Your task to perform on an android device: turn off priority inbox in the gmail app Image 0: 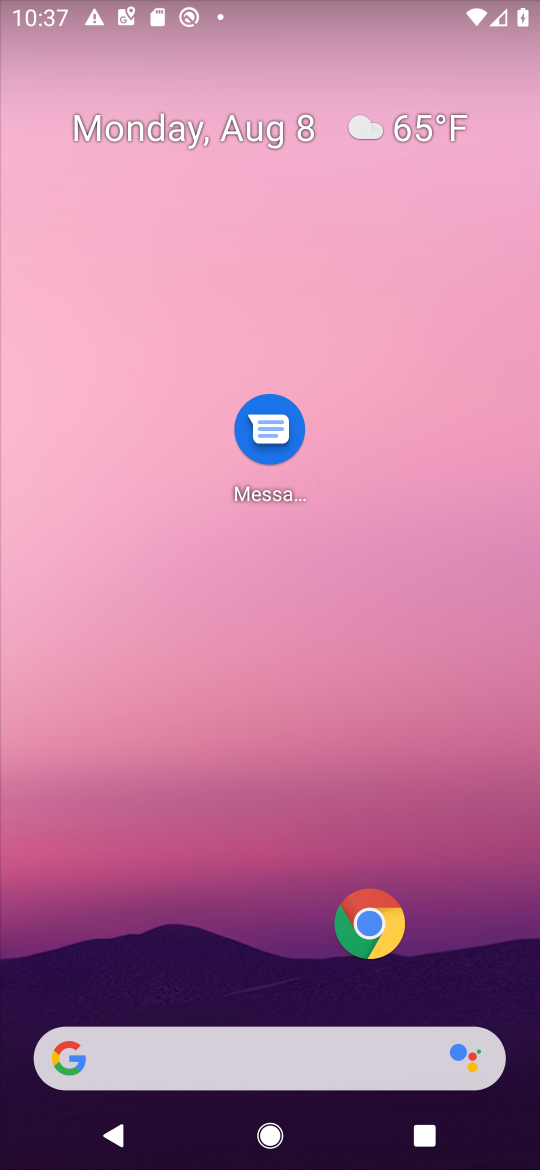
Step 0: drag from (56, 1119) to (247, 279)
Your task to perform on an android device: turn off priority inbox in the gmail app Image 1: 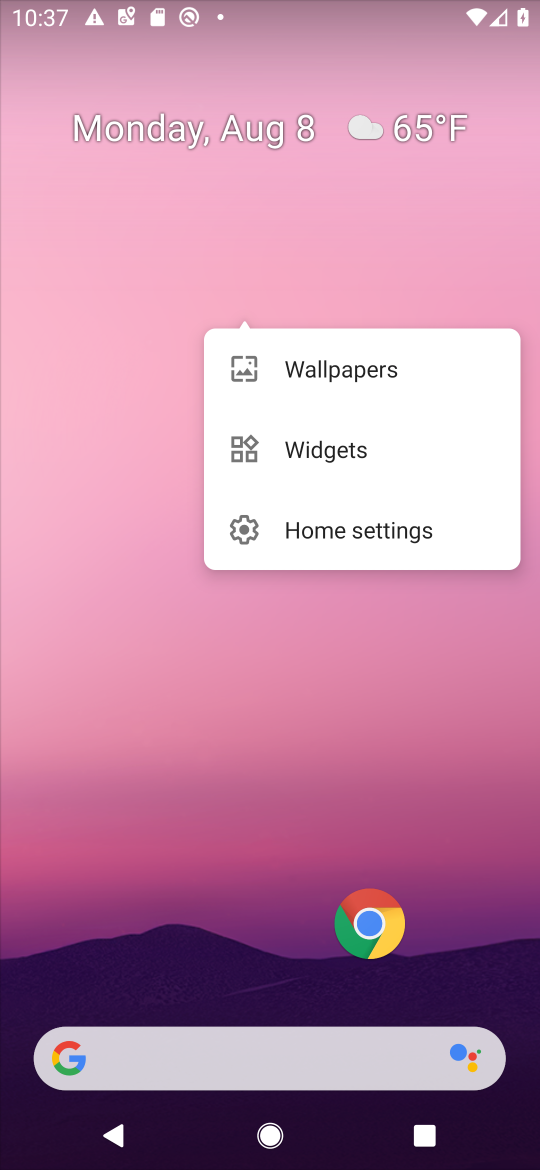
Step 1: drag from (100, 977) to (327, 421)
Your task to perform on an android device: turn off priority inbox in the gmail app Image 2: 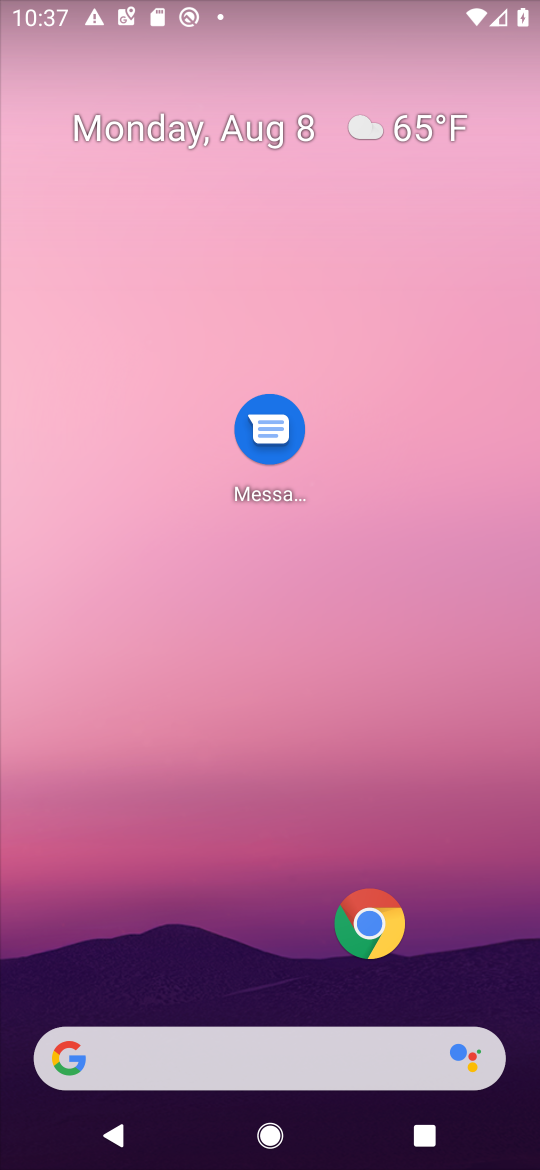
Step 2: drag from (19, 1122) to (195, 555)
Your task to perform on an android device: turn off priority inbox in the gmail app Image 3: 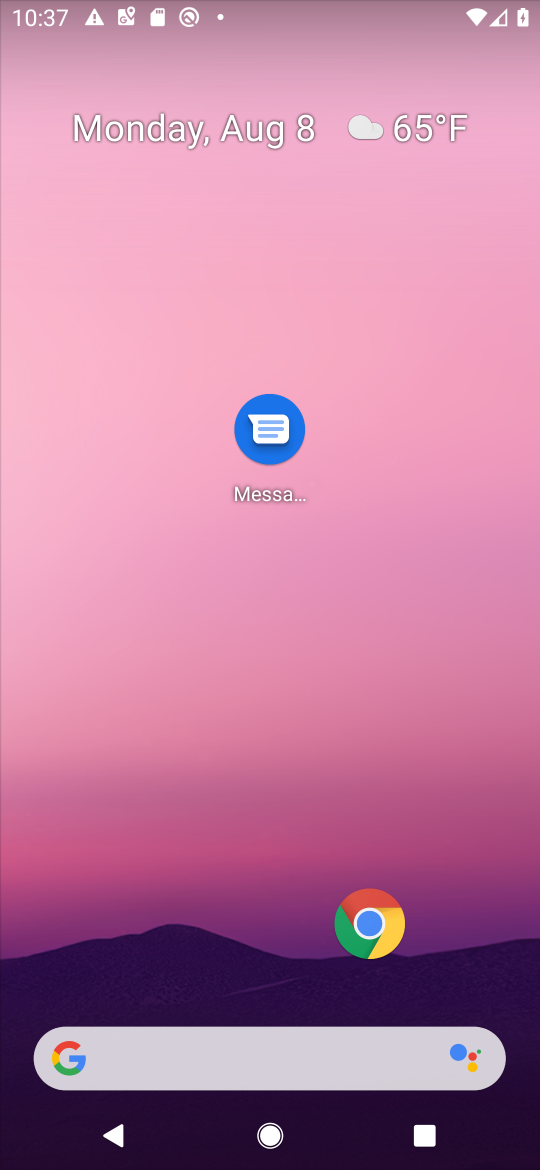
Step 3: click (195, 555)
Your task to perform on an android device: turn off priority inbox in the gmail app Image 4: 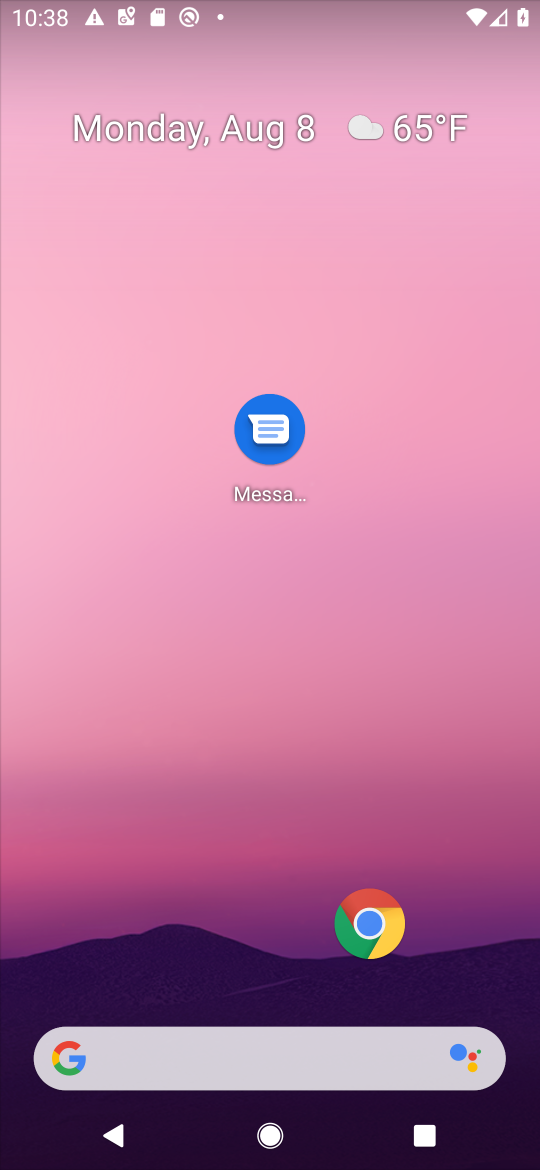
Step 4: task complete